Your task to perform on an android device: Go to internet settings Image 0: 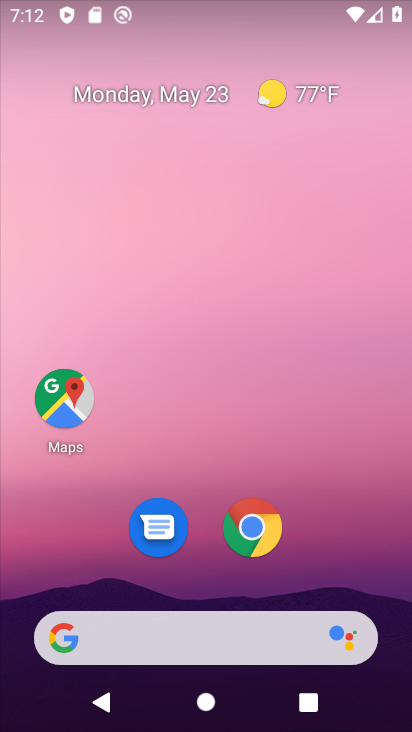
Step 0: drag from (301, 668) to (222, 62)
Your task to perform on an android device: Go to internet settings Image 1: 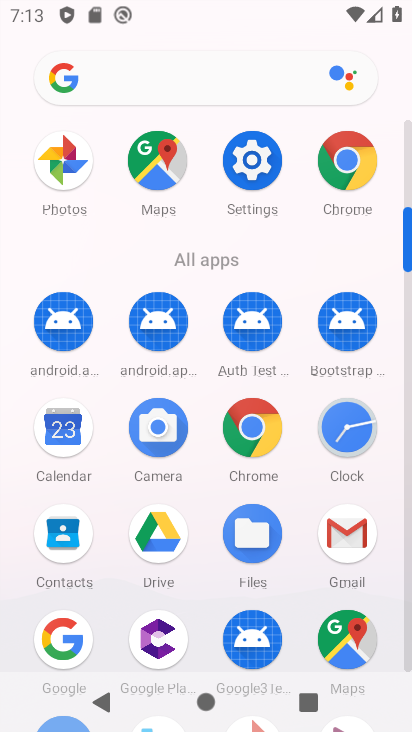
Step 1: click (252, 181)
Your task to perform on an android device: Go to internet settings Image 2: 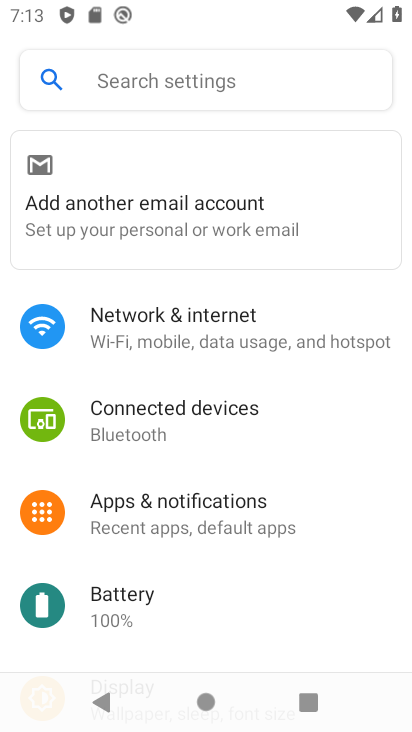
Step 2: click (163, 331)
Your task to perform on an android device: Go to internet settings Image 3: 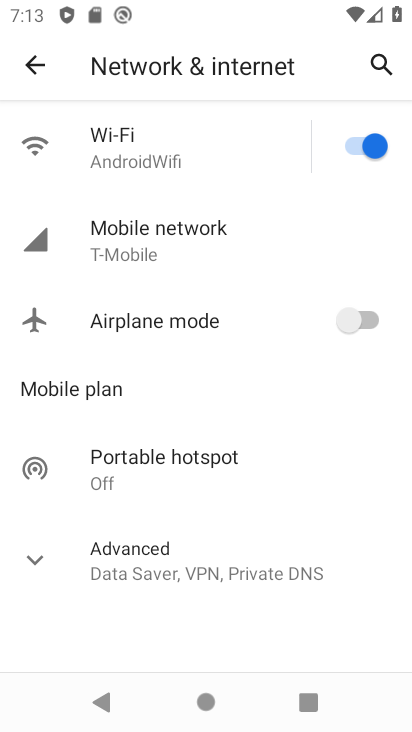
Step 3: task complete